Your task to perform on an android device: open a bookmark in the chrome app Image 0: 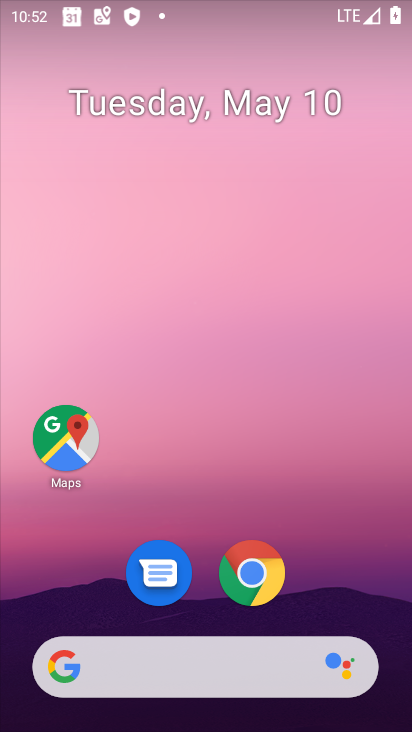
Step 0: click (248, 573)
Your task to perform on an android device: open a bookmark in the chrome app Image 1: 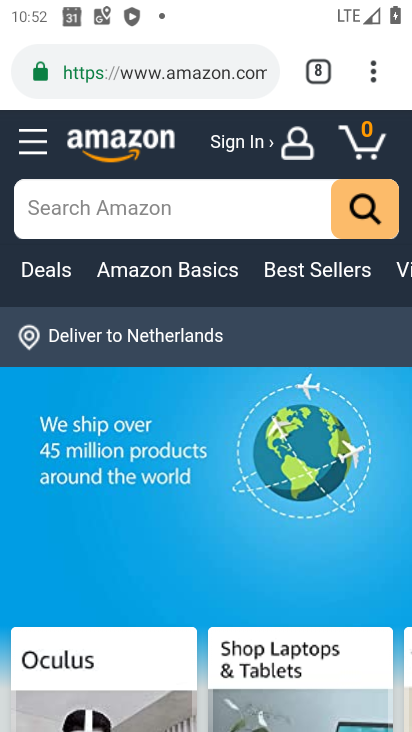
Step 1: click (370, 79)
Your task to perform on an android device: open a bookmark in the chrome app Image 2: 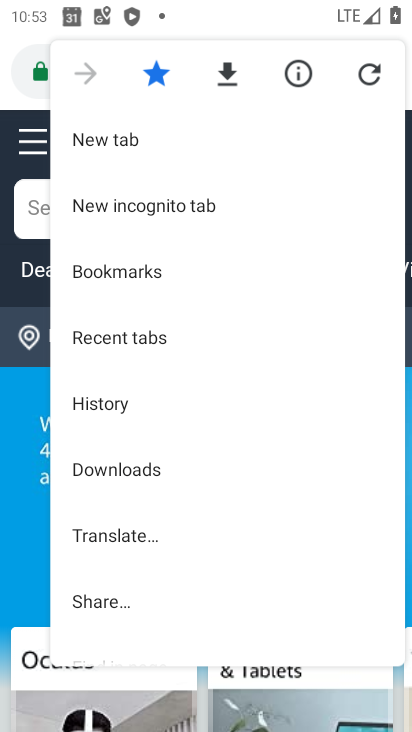
Step 2: click (138, 280)
Your task to perform on an android device: open a bookmark in the chrome app Image 3: 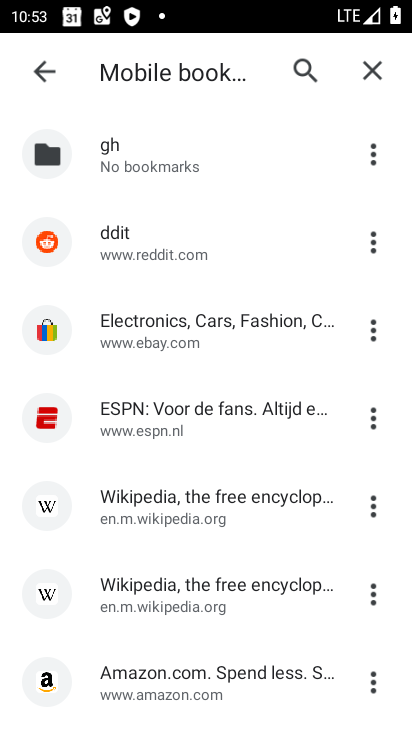
Step 3: task complete